Your task to perform on an android device: Do I have any events today? Image 0: 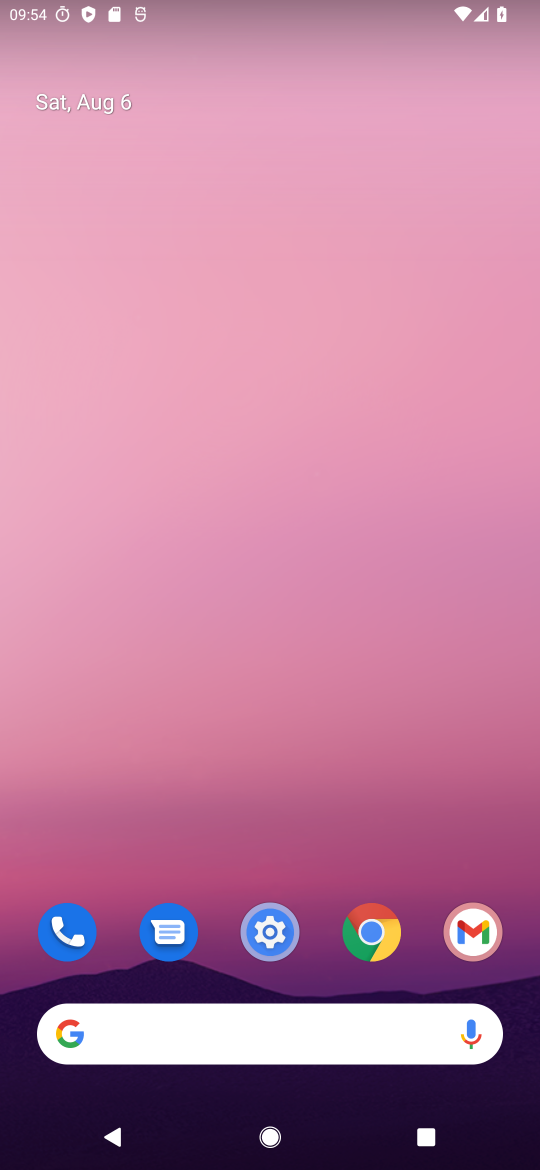
Step 0: press home button
Your task to perform on an android device: Do I have any events today? Image 1: 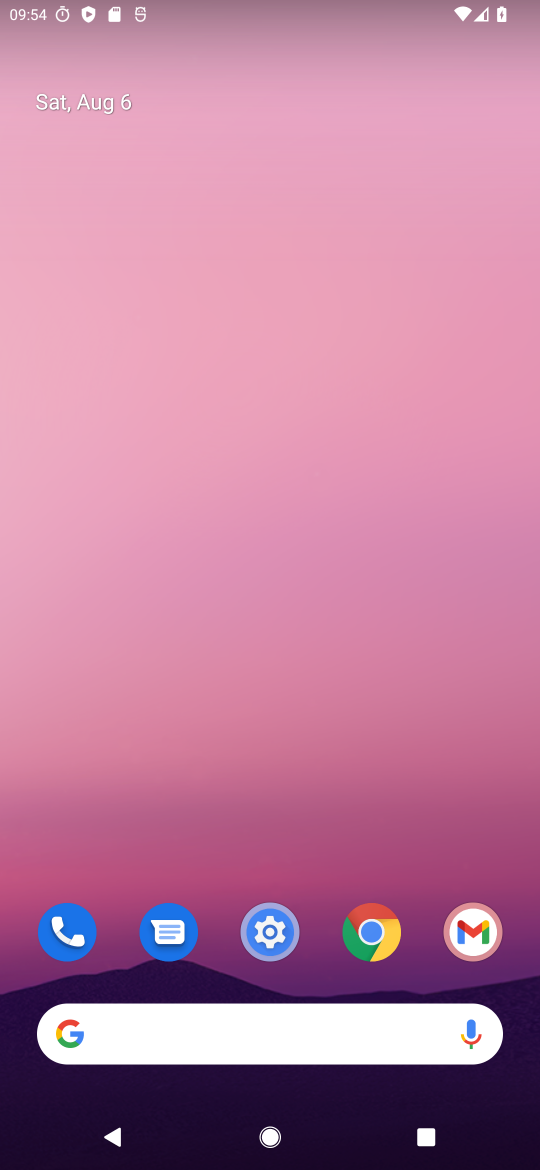
Step 1: click (182, 1033)
Your task to perform on an android device: Do I have any events today? Image 2: 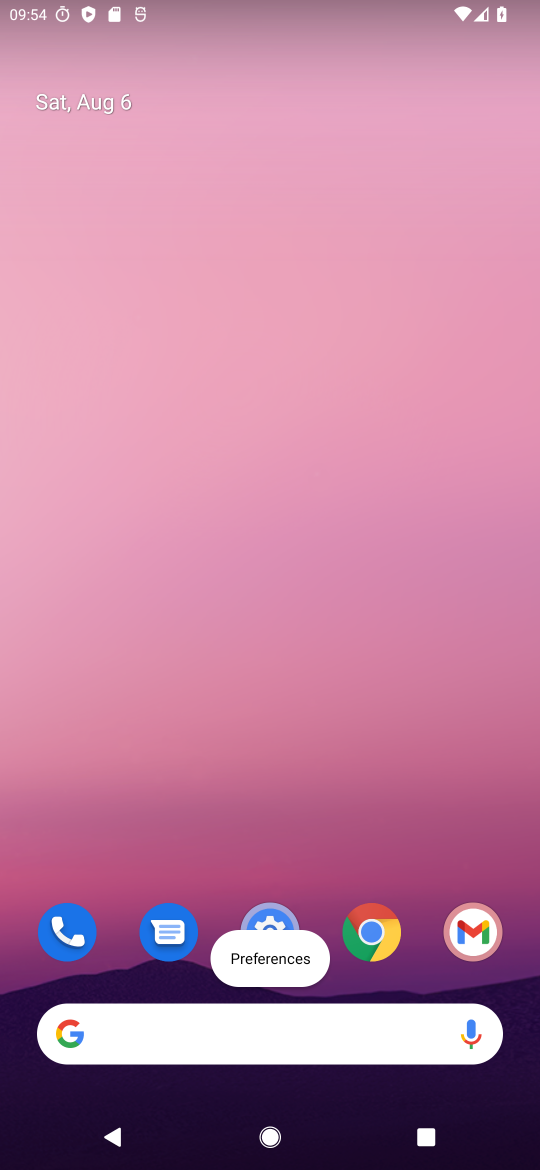
Step 2: click (161, 1027)
Your task to perform on an android device: Do I have any events today? Image 3: 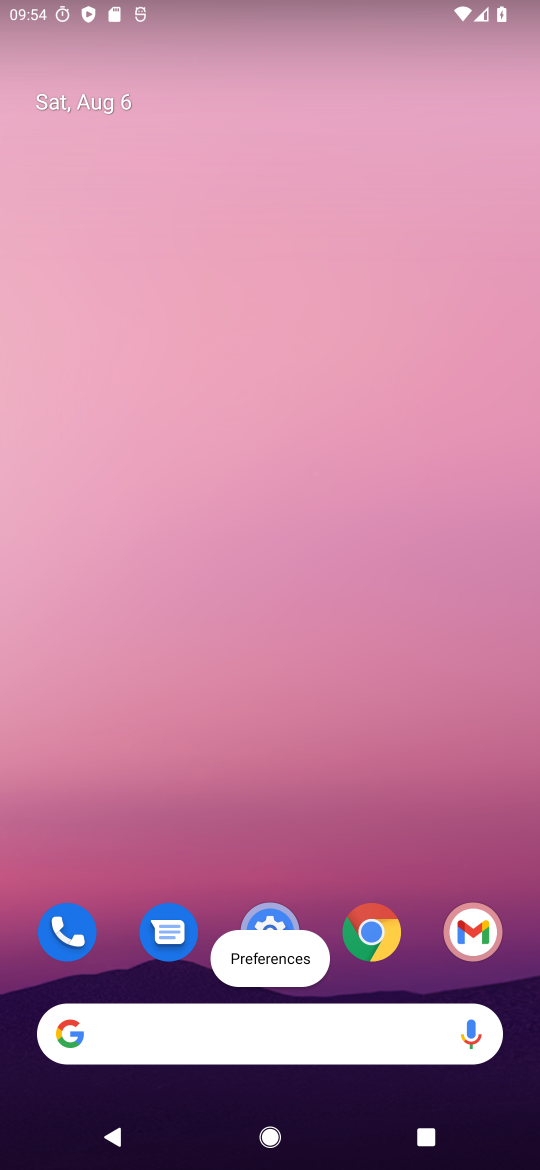
Step 3: click (171, 1024)
Your task to perform on an android device: Do I have any events today? Image 4: 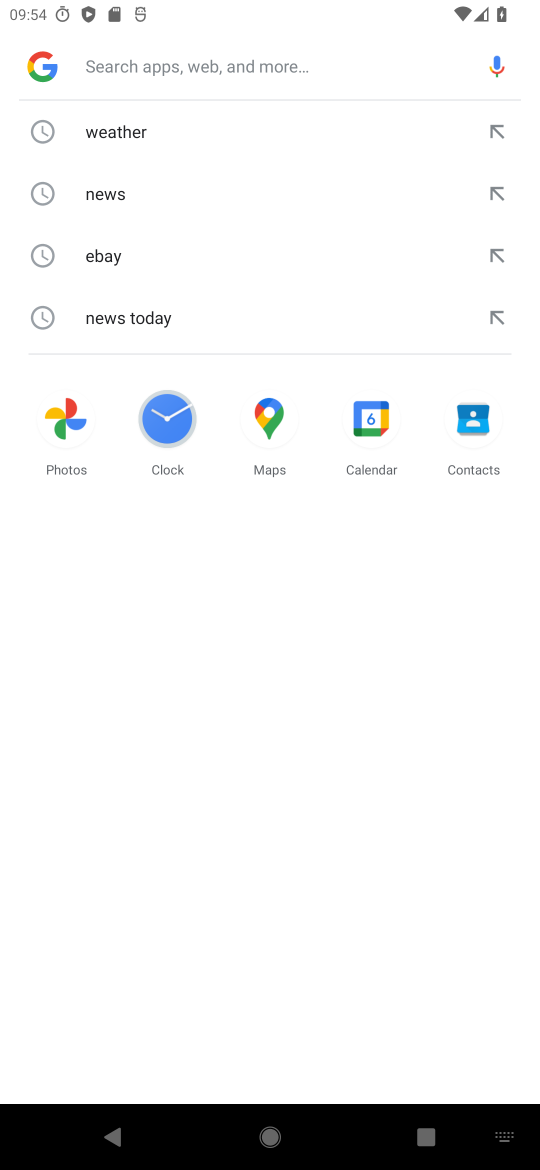
Step 4: click (370, 419)
Your task to perform on an android device: Do I have any events today? Image 5: 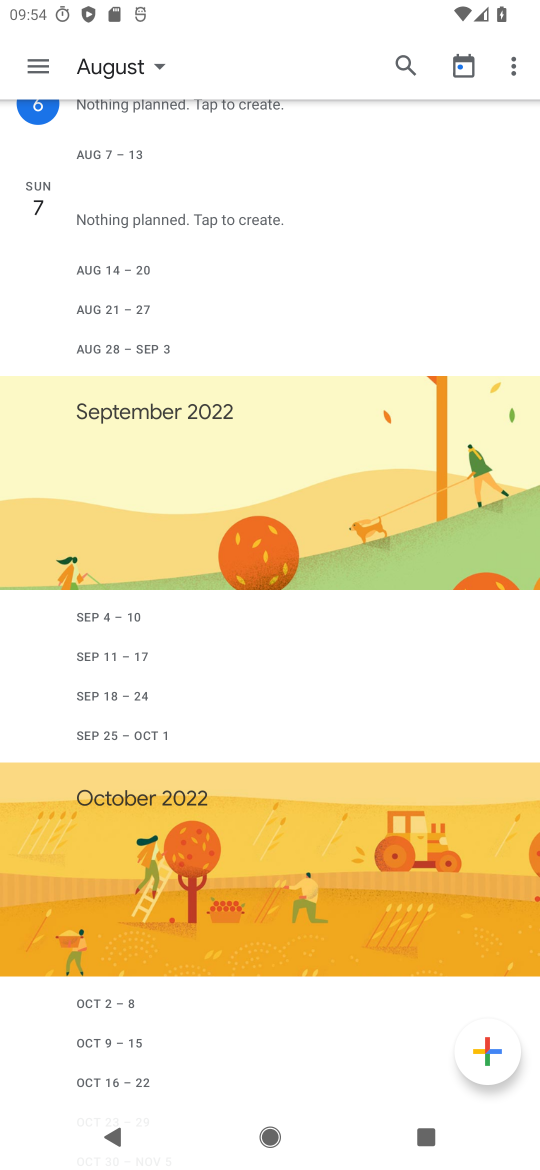
Step 5: task complete